Your task to perform on an android device: What's the weather going to be tomorrow? Image 0: 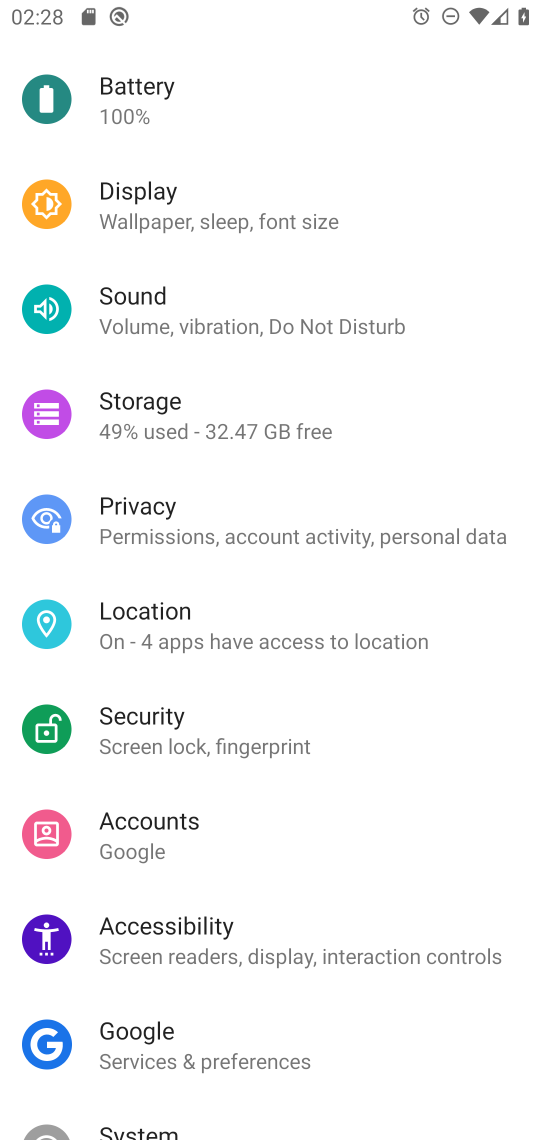
Step 0: press home button
Your task to perform on an android device: What's the weather going to be tomorrow? Image 1: 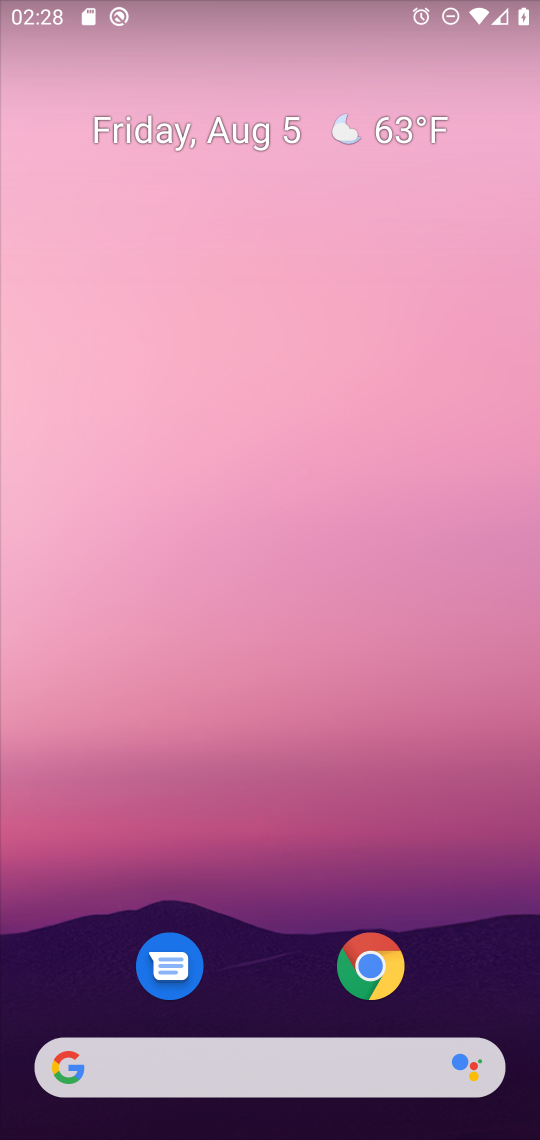
Step 1: click (391, 129)
Your task to perform on an android device: What's the weather going to be tomorrow? Image 2: 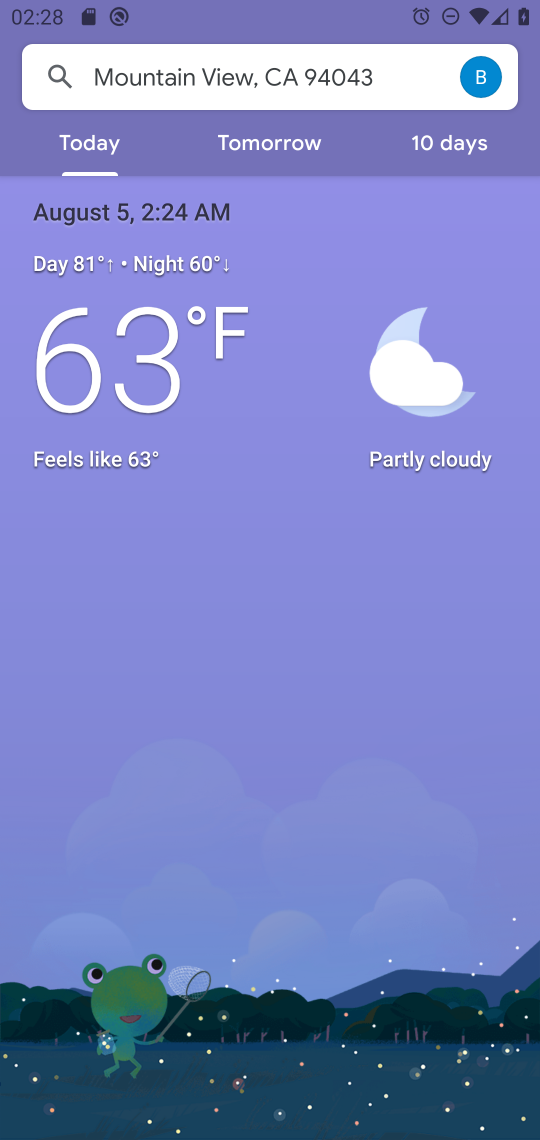
Step 2: drag from (251, 1060) to (444, 40)
Your task to perform on an android device: What's the weather going to be tomorrow? Image 3: 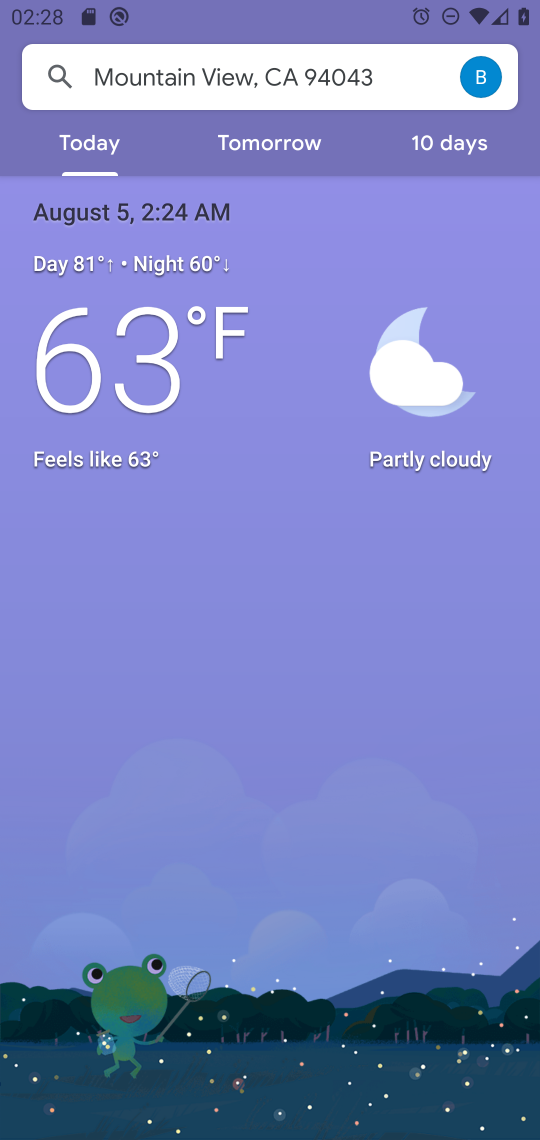
Step 3: drag from (271, 1090) to (276, 16)
Your task to perform on an android device: What's the weather going to be tomorrow? Image 4: 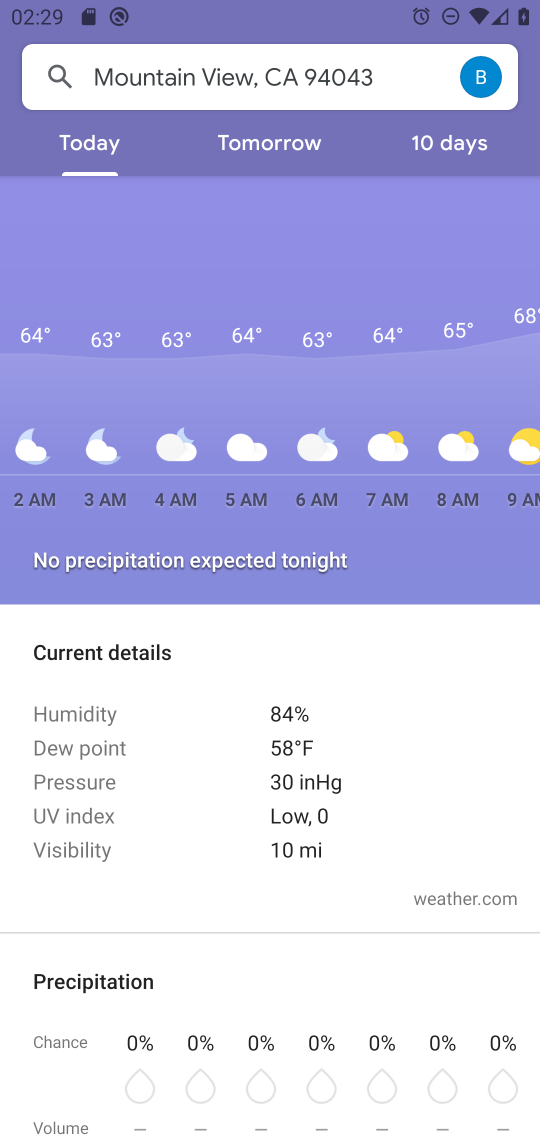
Step 4: click (245, 141)
Your task to perform on an android device: What's the weather going to be tomorrow? Image 5: 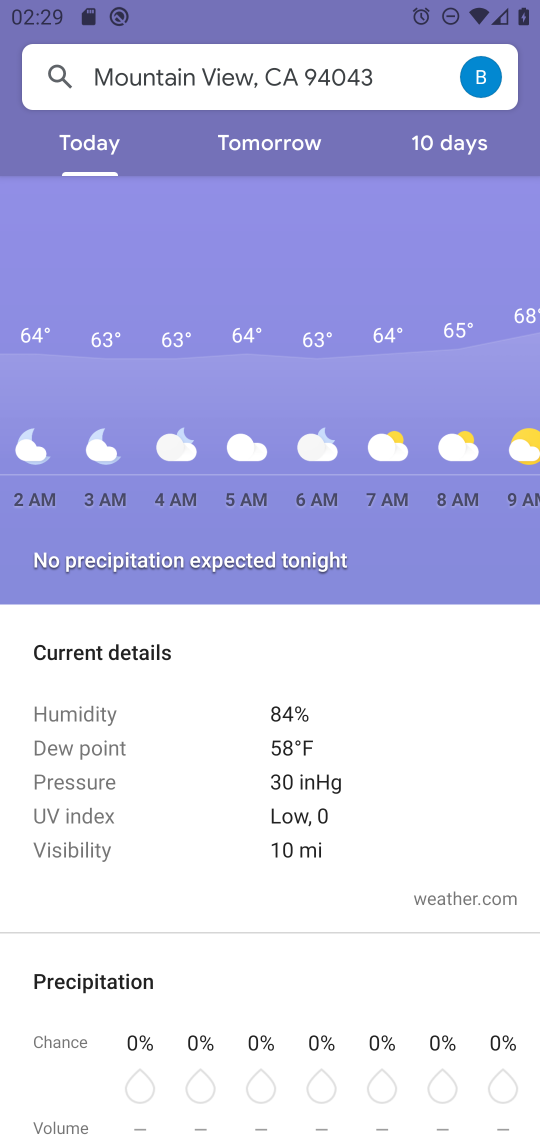
Step 5: click (256, 131)
Your task to perform on an android device: What's the weather going to be tomorrow? Image 6: 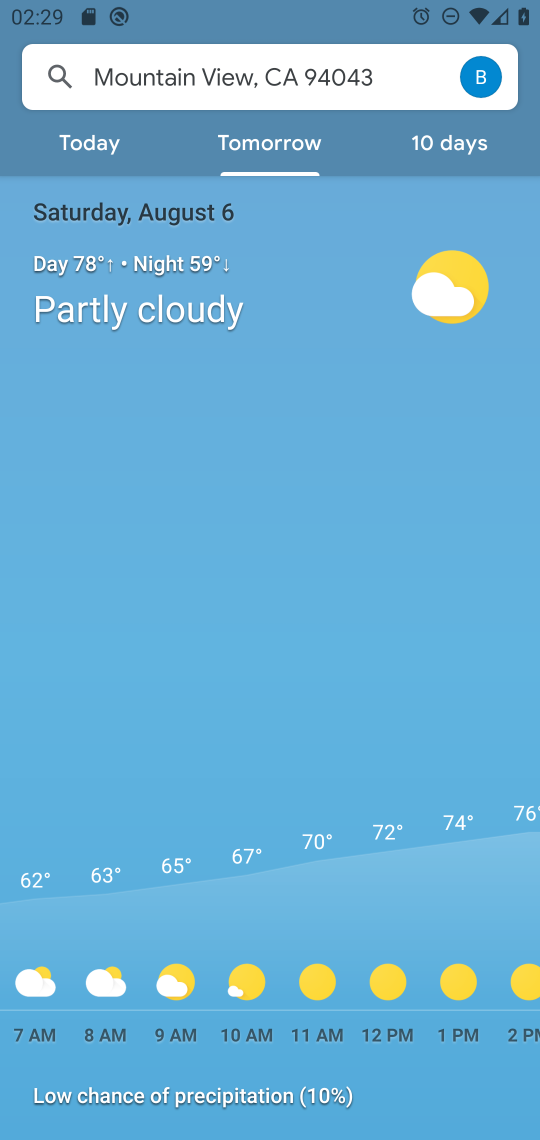
Step 6: task complete